Your task to perform on an android device: WHat are the new products by Samsung on eBay? Image 0: 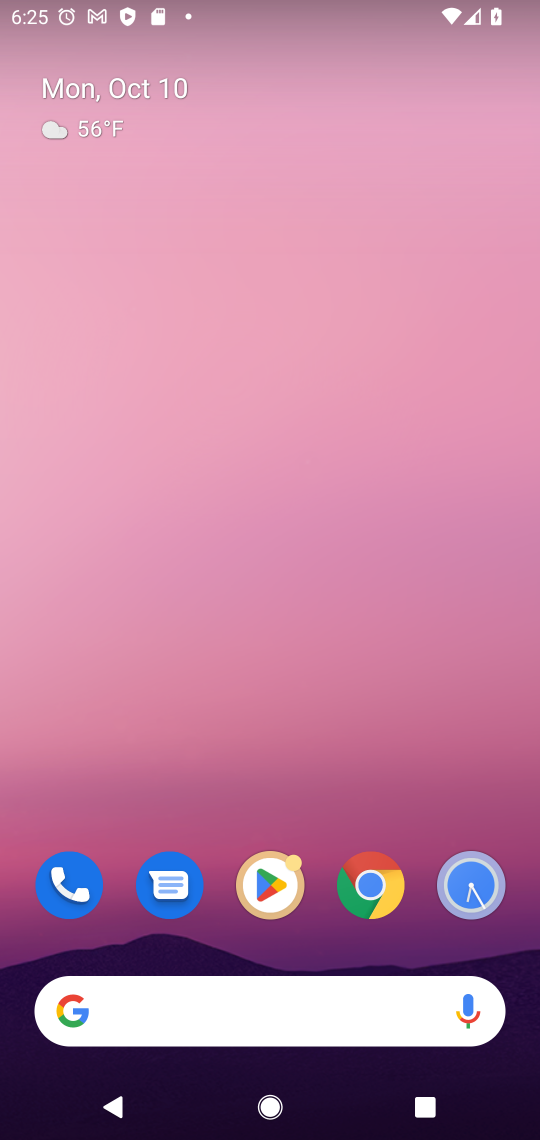
Step 0: click (159, 1008)
Your task to perform on an android device: WHat are the new products by Samsung on eBay? Image 1: 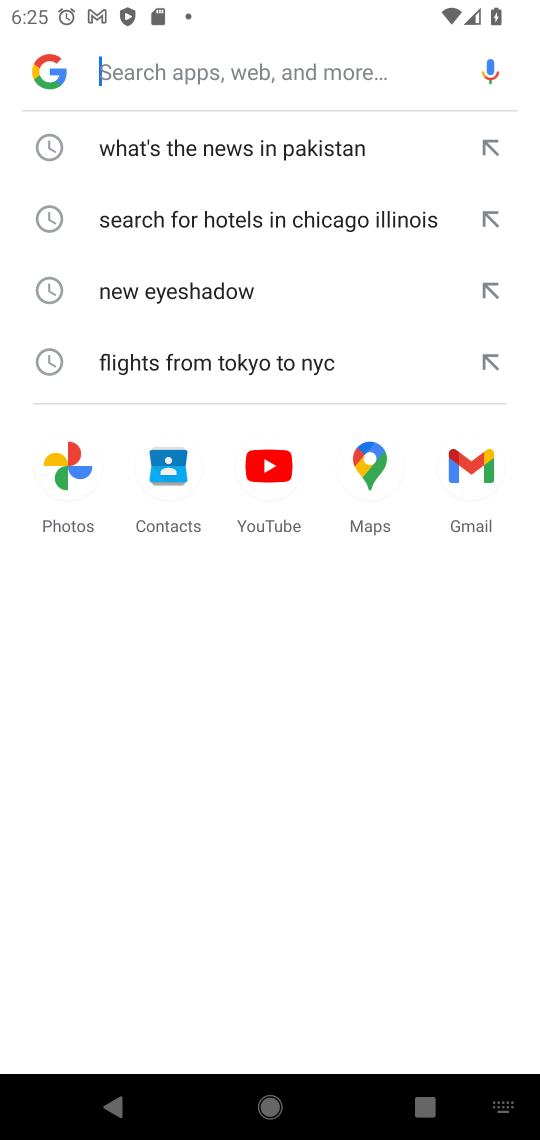
Step 1: type "WHat are the new products by Samsung on eBay?"
Your task to perform on an android device: WHat are the new products by Samsung on eBay? Image 2: 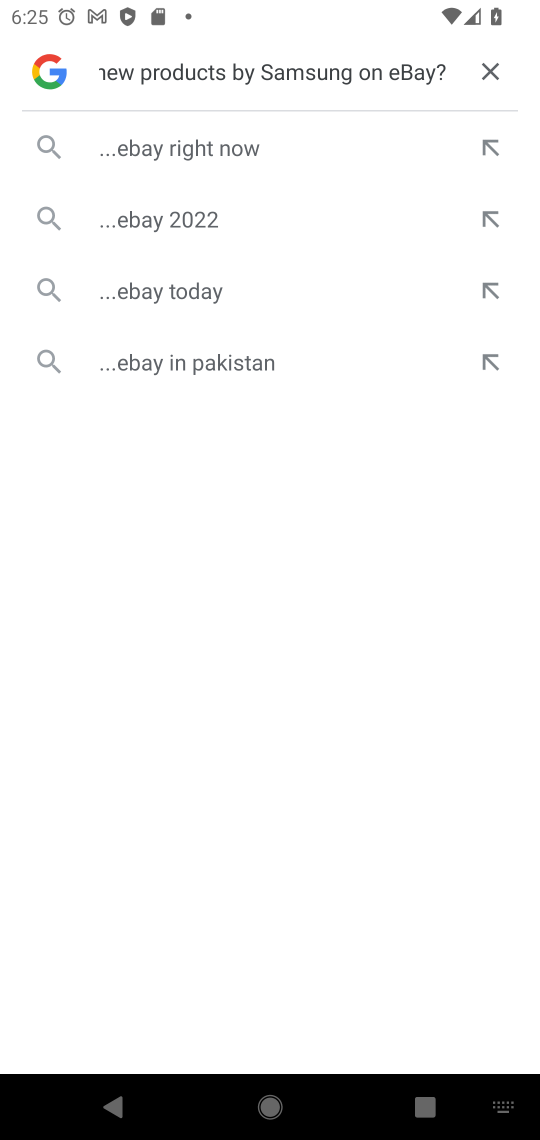
Step 2: click (154, 149)
Your task to perform on an android device: WHat are the new products by Samsung on eBay? Image 3: 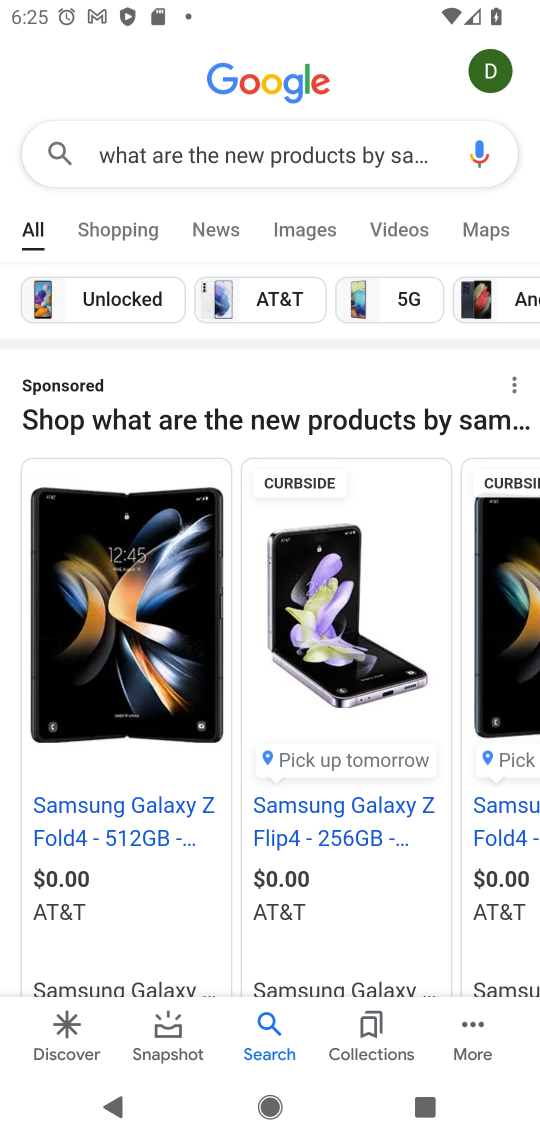
Step 3: drag from (198, 942) to (201, 701)
Your task to perform on an android device: WHat are the new products by Samsung on eBay? Image 4: 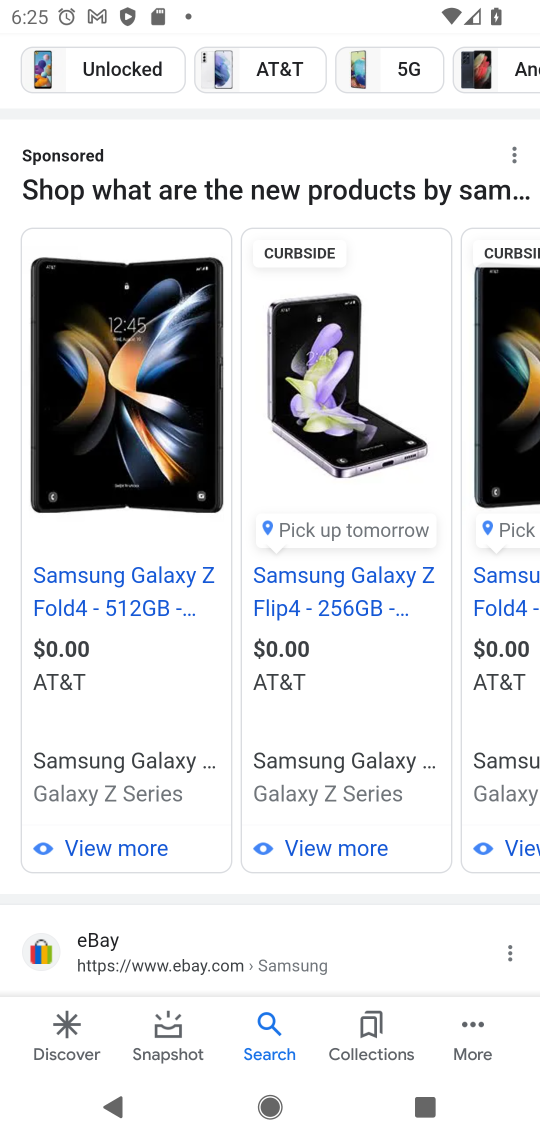
Step 4: drag from (245, 905) to (244, 743)
Your task to perform on an android device: WHat are the new products by Samsung on eBay? Image 5: 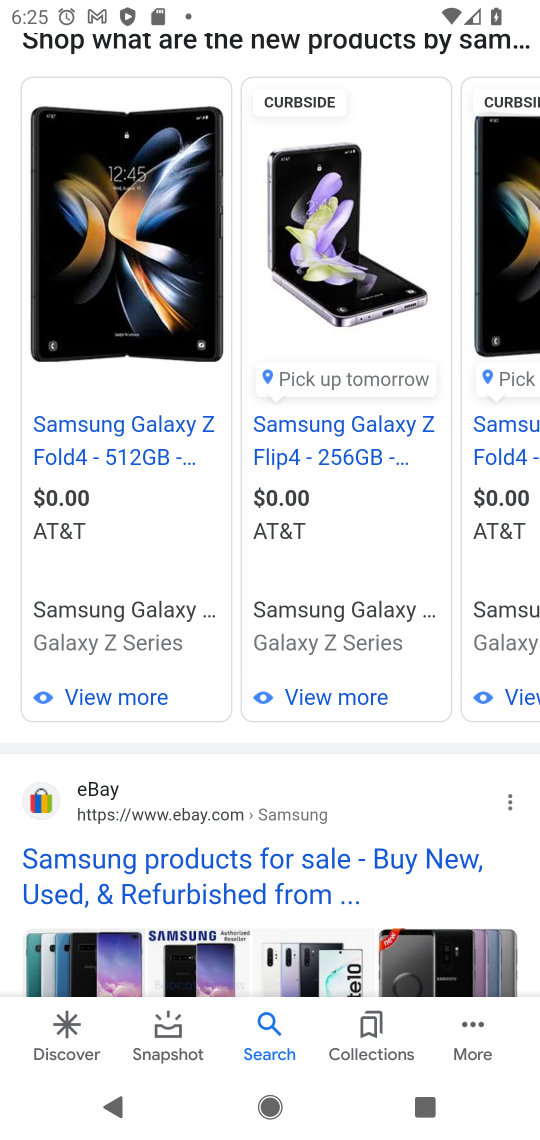
Step 5: click (164, 854)
Your task to perform on an android device: WHat are the new products by Samsung on eBay? Image 6: 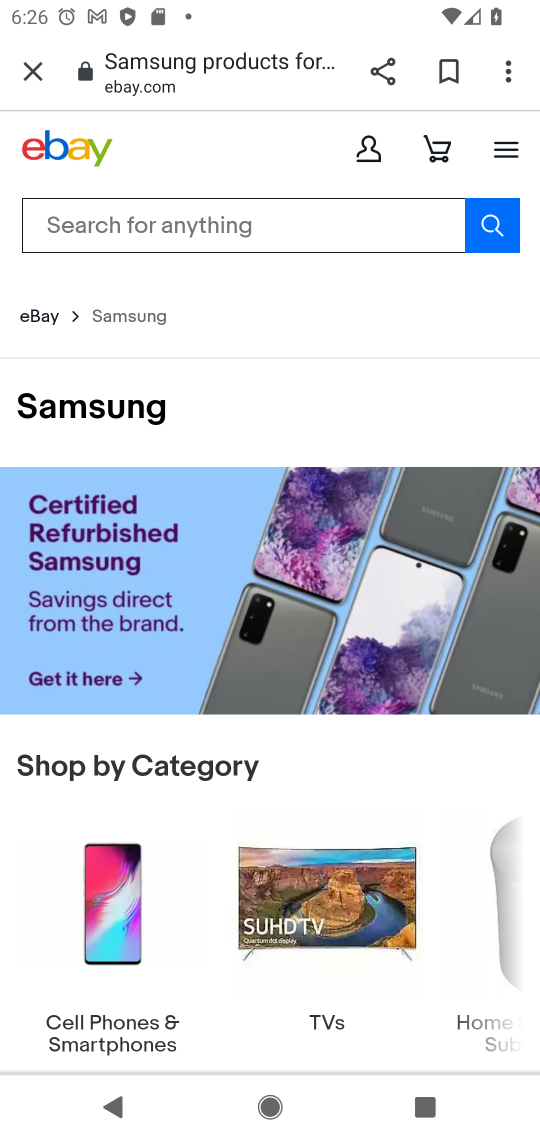
Step 6: task complete